Your task to perform on an android device: See recent photos Image 0: 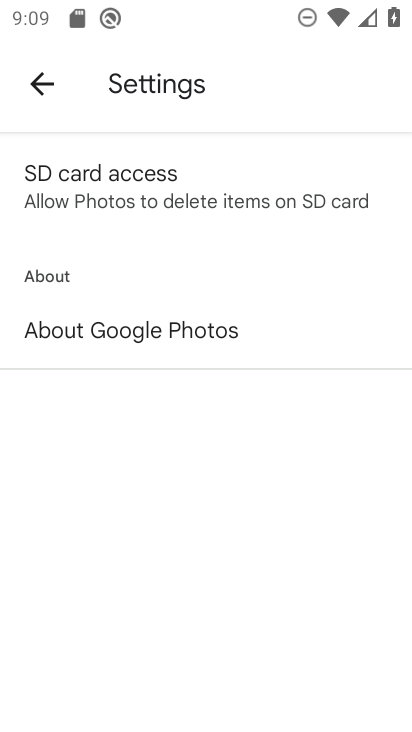
Step 0: click (38, 78)
Your task to perform on an android device: See recent photos Image 1: 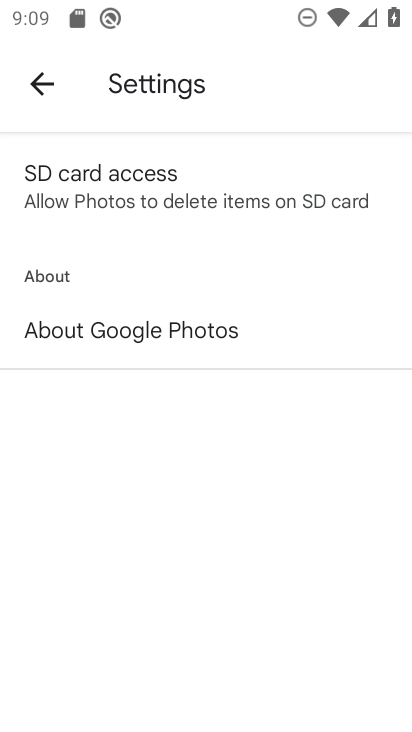
Step 1: click (44, 75)
Your task to perform on an android device: See recent photos Image 2: 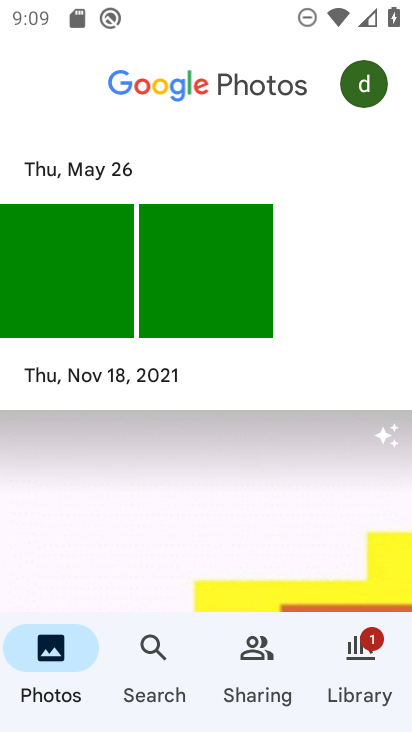
Step 2: press back button
Your task to perform on an android device: See recent photos Image 3: 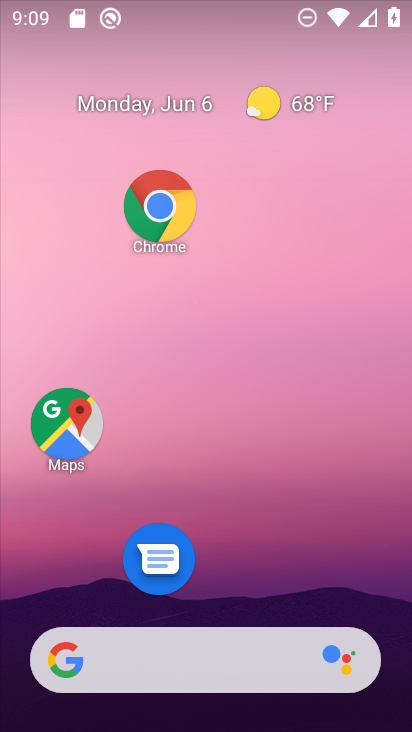
Step 3: drag from (246, 588) to (246, 245)
Your task to perform on an android device: See recent photos Image 4: 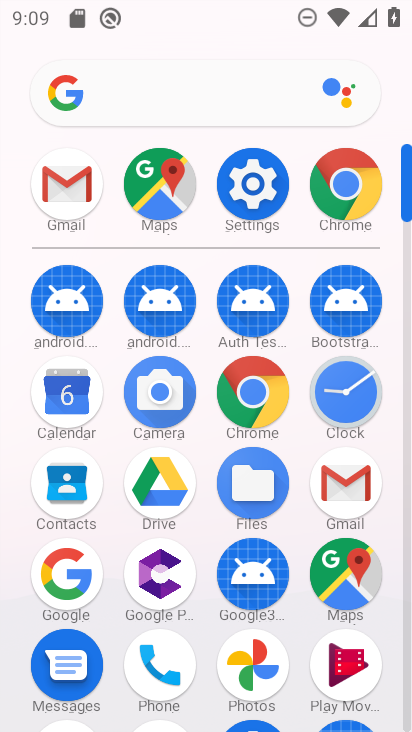
Step 4: click (261, 655)
Your task to perform on an android device: See recent photos Image 5: 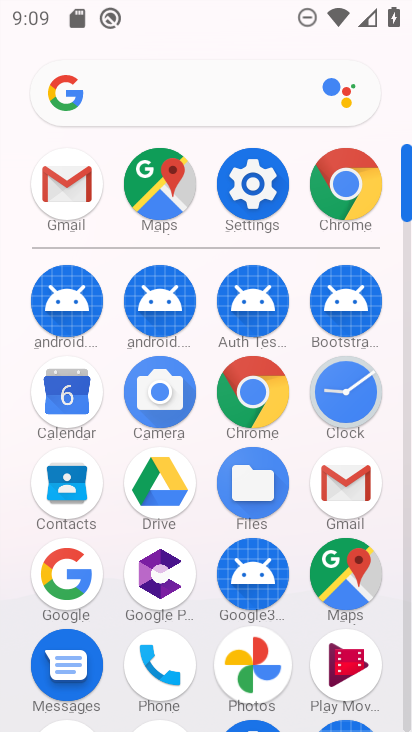
Step 5: click (260, 655)
Your task to perform on an android device: See recent photos Image 6: 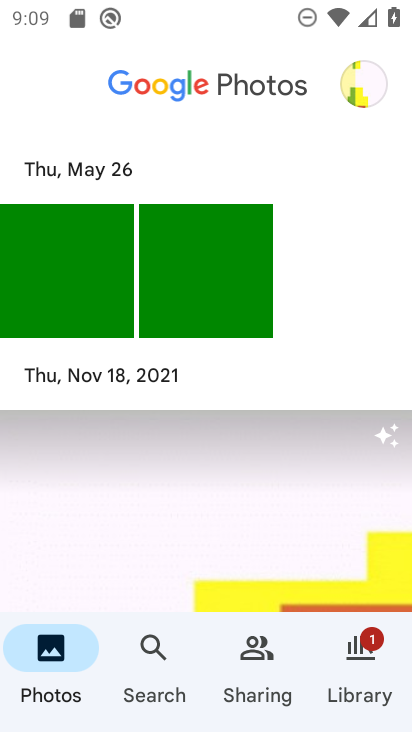
Step 6: drag from (203, 485) to (187, 254)
Your task to perform on an android device: See recent photos Image 7: 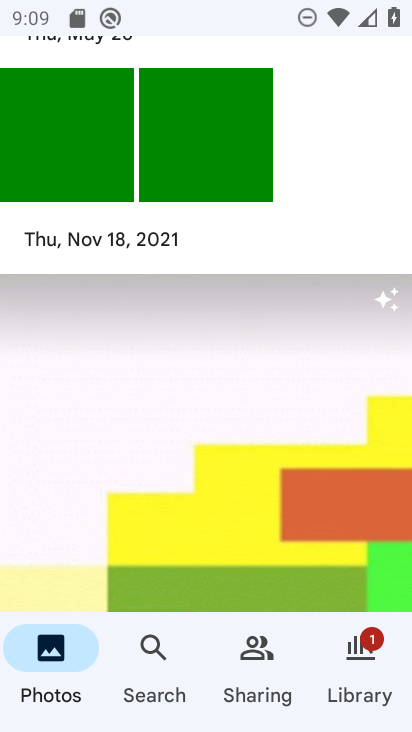
Step 7: drag from (233, 421) to (214, 332)
Your task to perform on an android device: See recent photos Image 8: 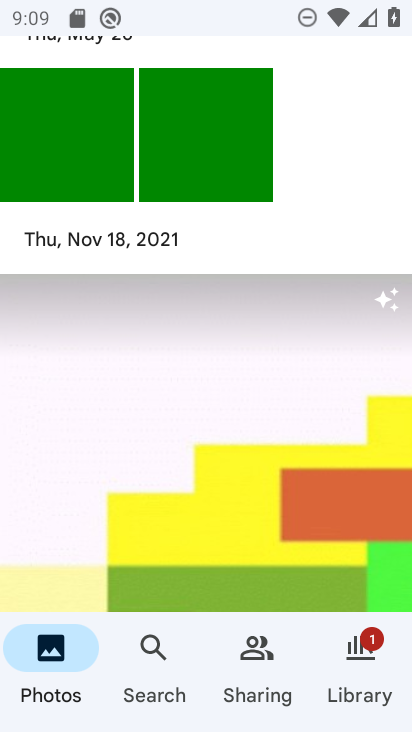
Step 8: drag from (186, 384) to (198, 276)
Your task to perform on an android device: See recent photos Image 9: 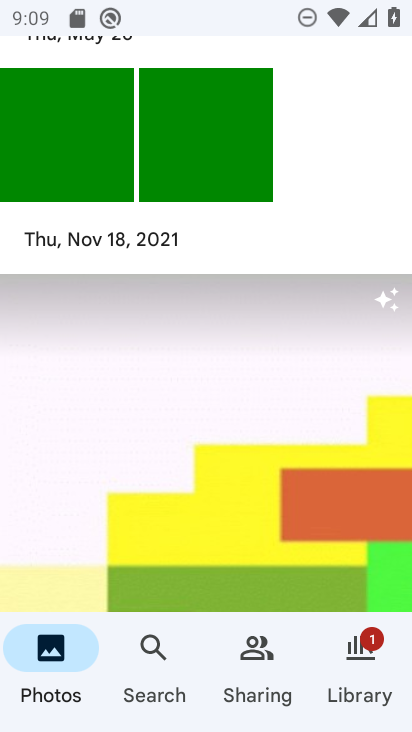
Step 9: drag from (188, 489) to (188, 250)
Your task to perform on an android device: See recent photos Image 10: 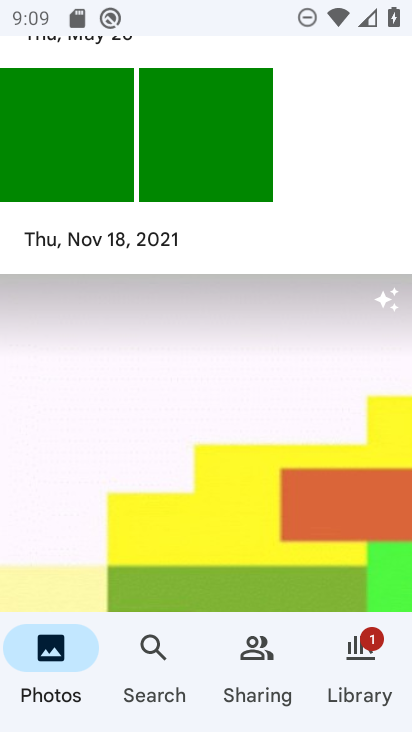
Step 10: drag from (219, 322) to (240, 178)
Your task to perform on an android device: See recent photos Image 11: 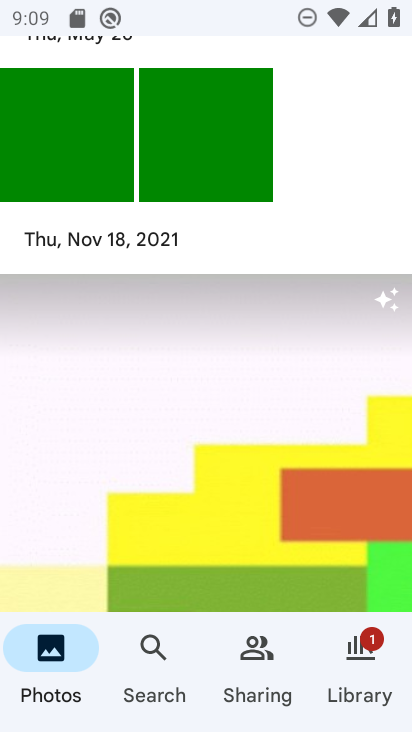
Step 11: drag from (232, 419) to (221, 178)
Your task to perform on an android device: See recent photos Image 12: 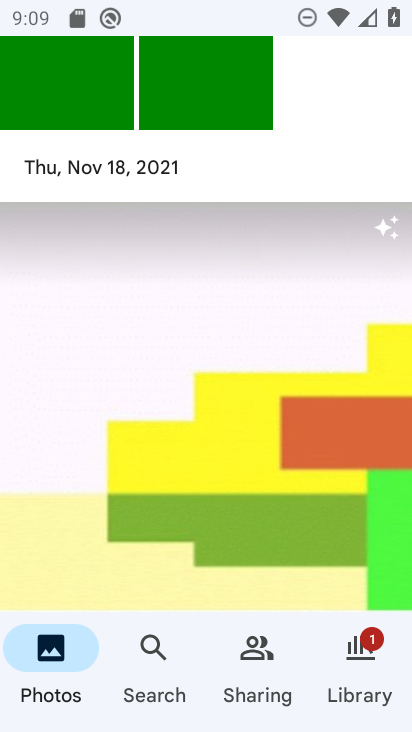
Step 12: drag from (211, 464) to (201, 273)
Your task to perform on an android device: See recent photos Image 13: 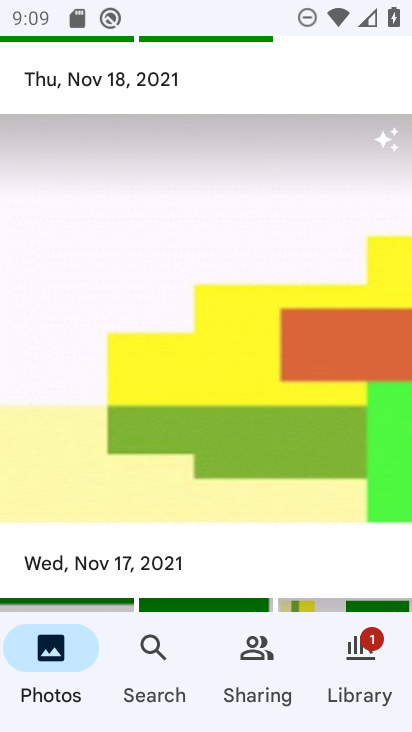
Step 13: drag from (184, 411) to (206, 170)
Your task to perform on an android device: See recent photos Image 14: 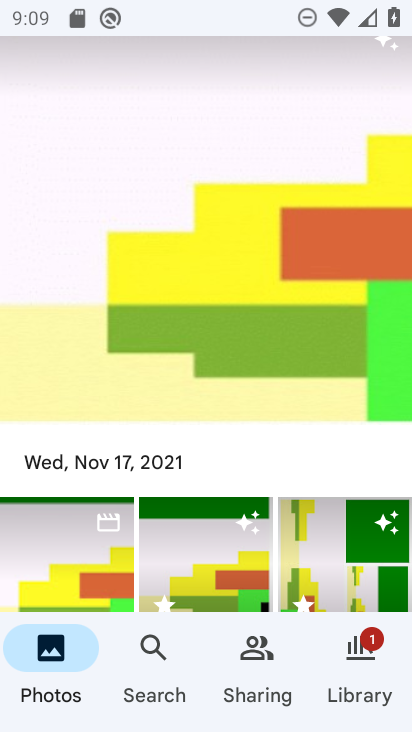
Step 14: click (187, 195)
Your task to perform on an android device: See recent photos Image 15: 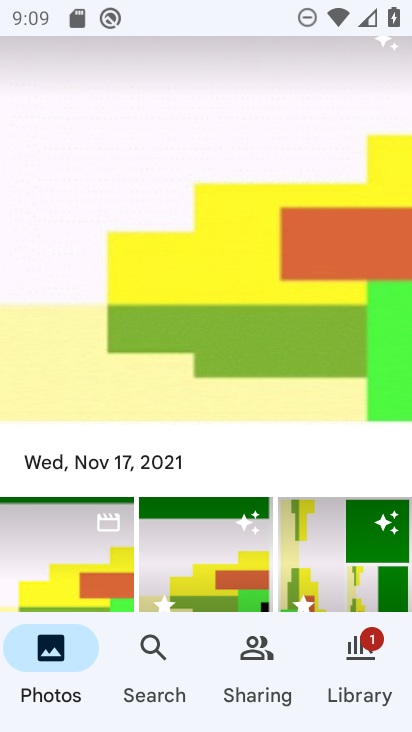
Step 15: click (203, 250)
Your task to perform on an android device: See recent photos Image 16: 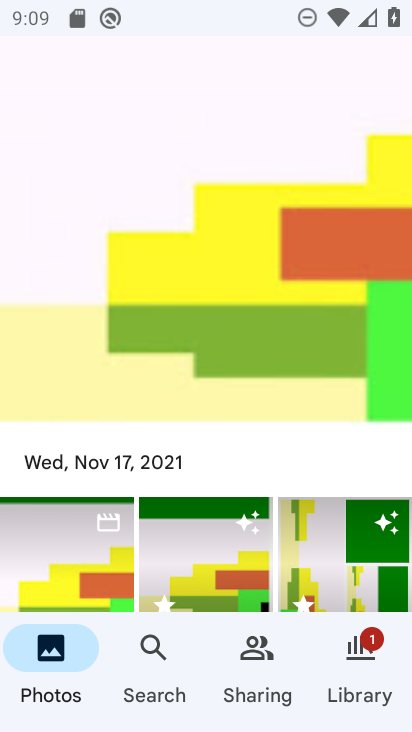
Step 16: drag from (208, 411) to (203, 202)
Your task to perform on an android device: See recent photos Image 17: 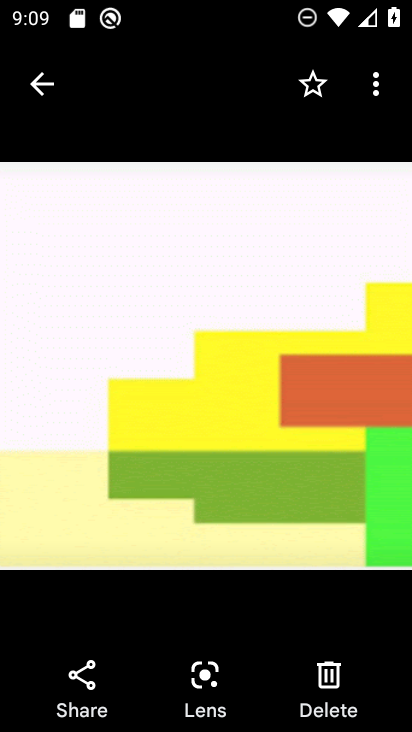
Step 17: drag from (199, 351) to (199, 266)
Your task to perform on an android device: See recent photos Image 18: 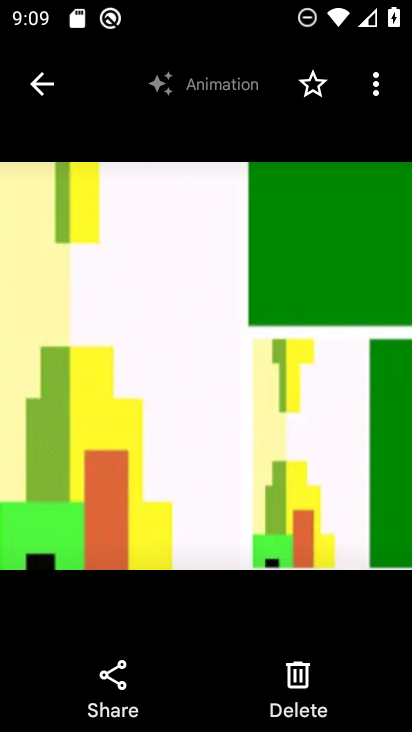
Step 18: drag from (200, 375) to (200, 315)
Your task to perform on an android device: See recent photos Image 19: 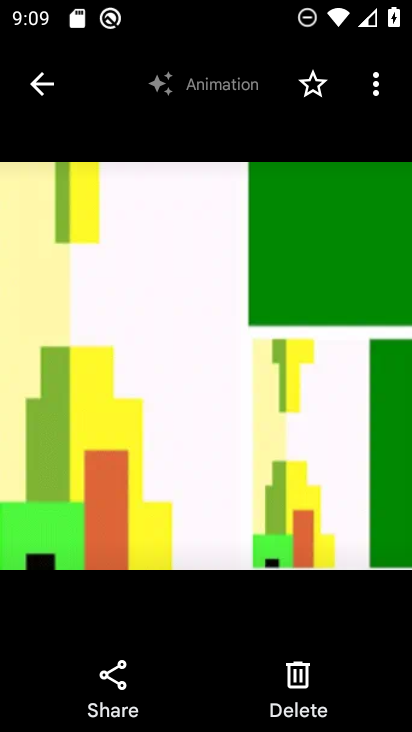
Step 19: click (39, 90)
Your task to perform on an android device: See recent photos Image 20: 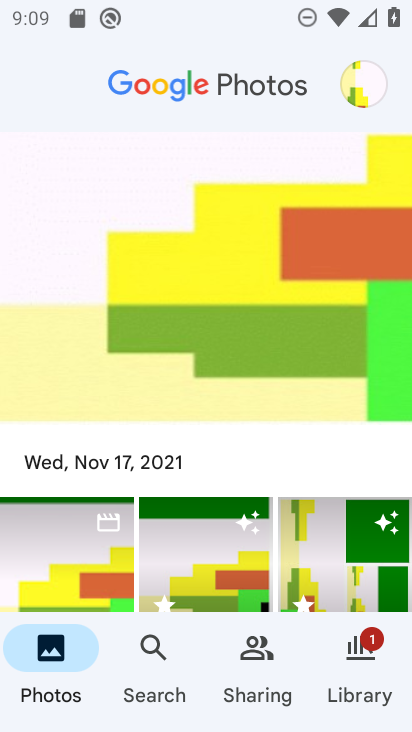
Step 20: task complete